Your task to perform on an android device: turn notification dots off Image 0: 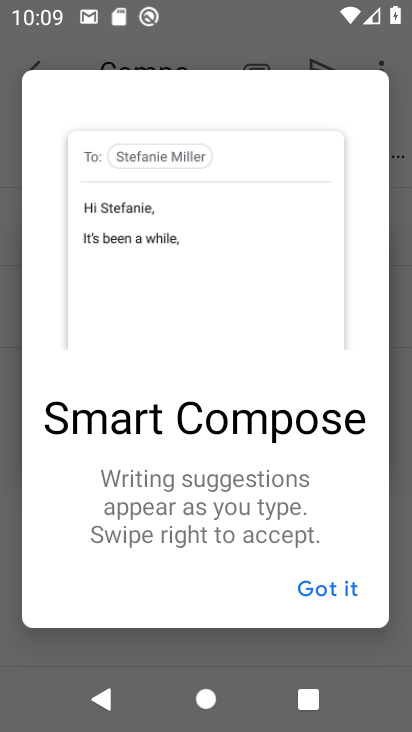
Step 0: press home button
Your task to perform on an android device: turn notification dots off Image 1: 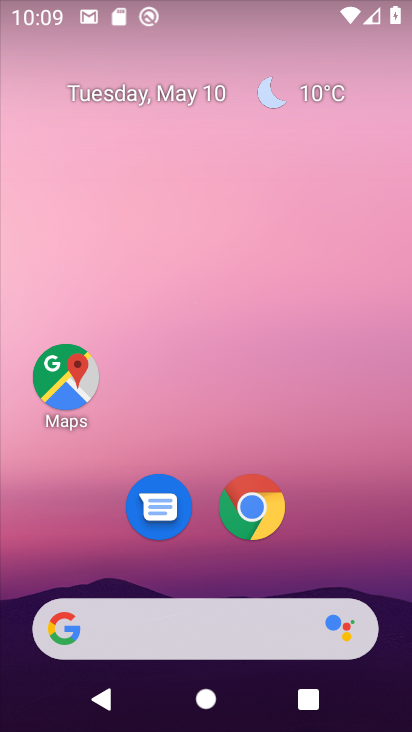
Step 1: drag from (306, 504) to (313, 101)
Your task to perform on an android device: turn notification dots off Image 2: 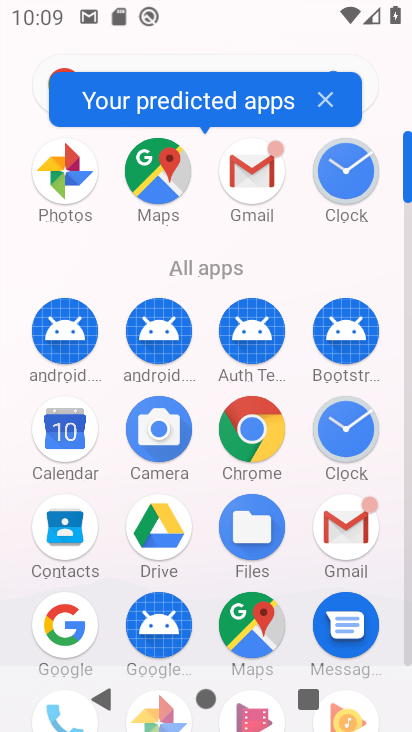
Step 2: drag from (195, 651) to (216, 275)
Your task to perform on an android device: turn notification dots off Image 3: 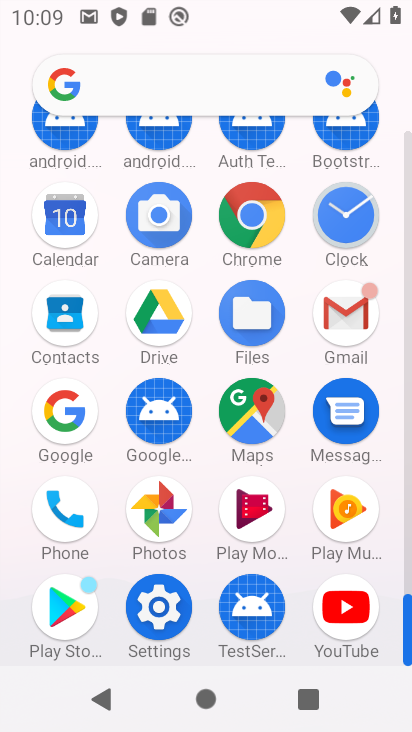
Step 3: click (157, 601)
Your task to perform on an android device: turn notification dots off Image 4: 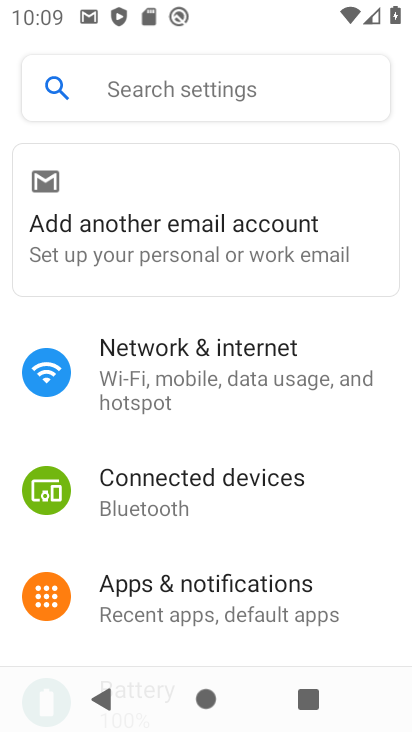
Step 4: click (235, 609)
Your task to perform on an android device: turn notification dots off Image 5: 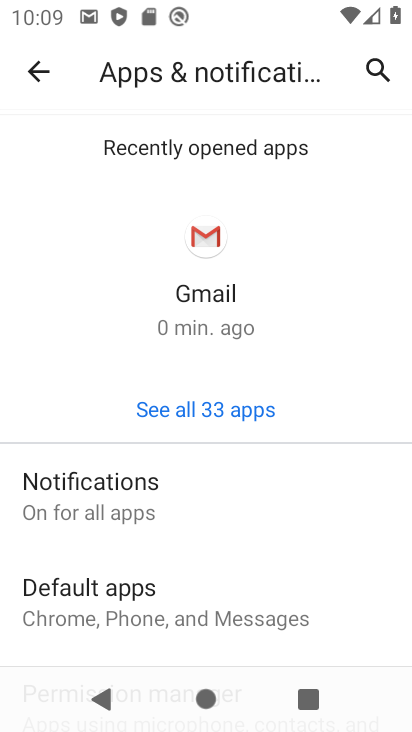
Step 5: click (147, 518)
Your task to perform on an android device: turn notification dots off Image 6: 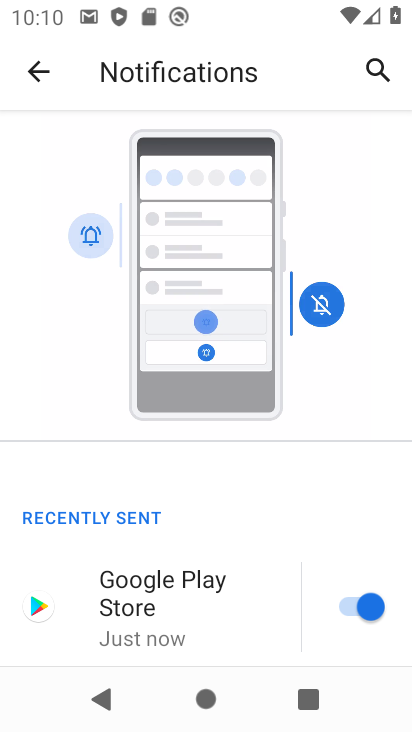
Step 6: drag from (247, 587) to (301, 143)
Your task to perform on an android device: turn notification dots off Image 7: 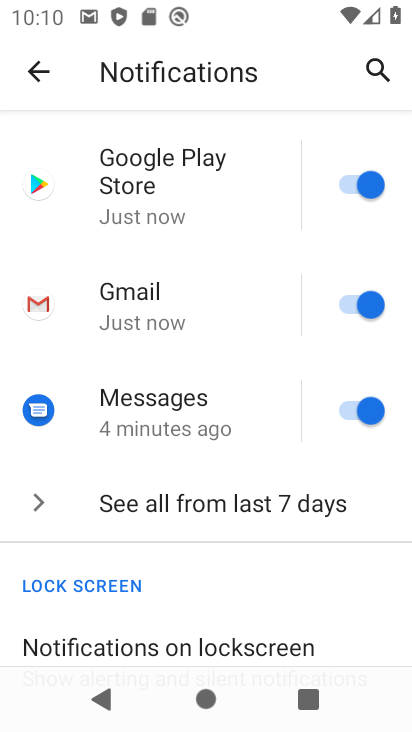
Step 7: drag from (209, 600) to (252, 267)
Your task to perform on an android device: turn notification dots off Image 8: 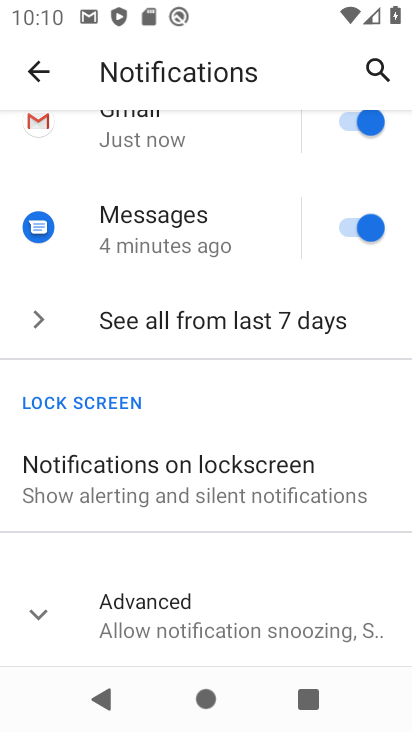
Step 8: click (264, 496)
Your task to perform on an android device: turn notification dots off Image 9: 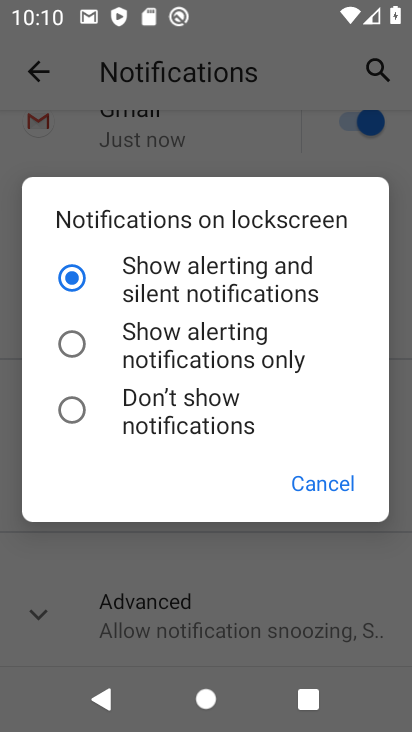
Step 9: click (308, 481)
Your task to perform on an android device: turn notification dots off Image 10: 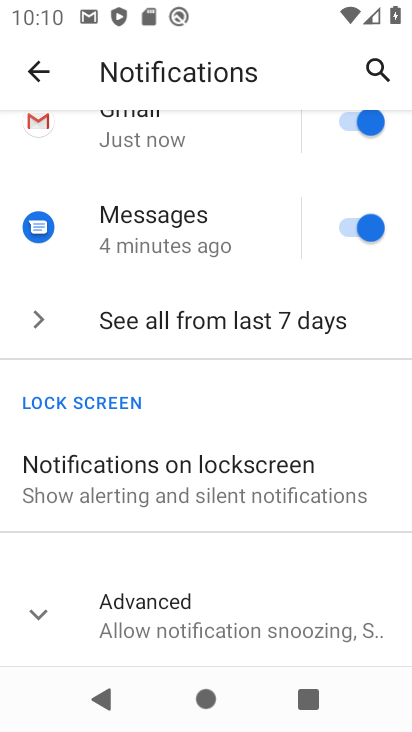
Step 10: drag from (236, 598) to (271, 260)
Your task to perform on an android device: turn notification dots off Image 11: 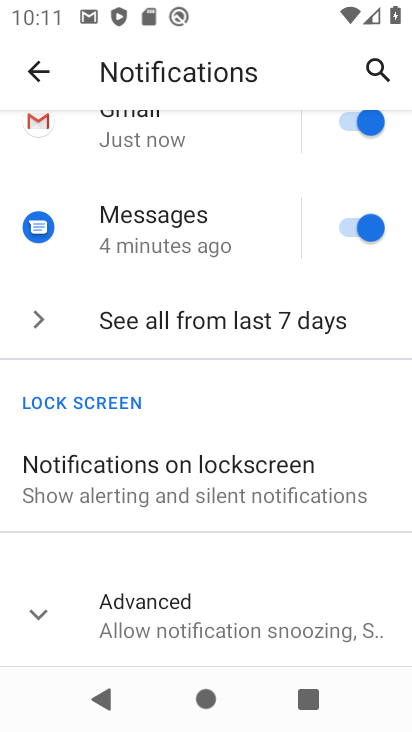
Step 11: click (36, 611)
Your task to perform on an android device: turn notification dots off Image 12: 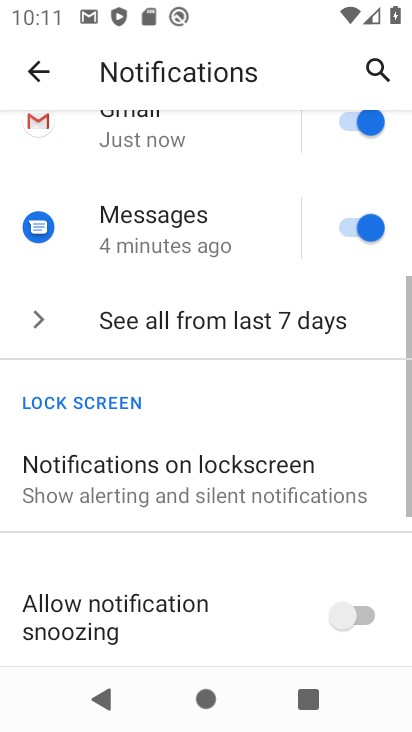
Step 12: drag from (165, 540) to (200, 274)
Your task to perform on an android device: turn notification dots off Image 13: 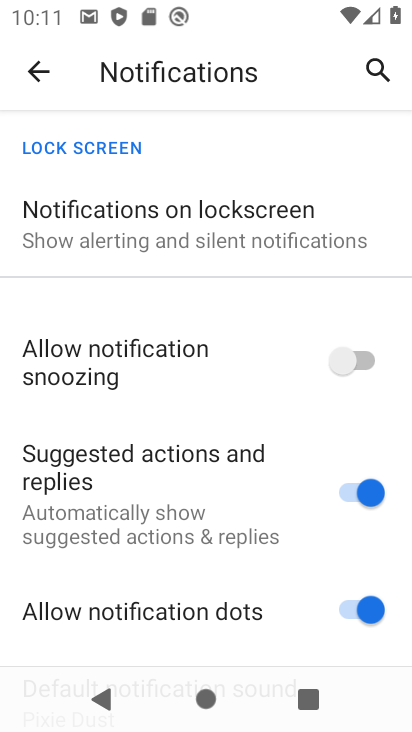
Step 13: click (371, 616)
Your task to perform on an android device: turn notification dots off Image 14: 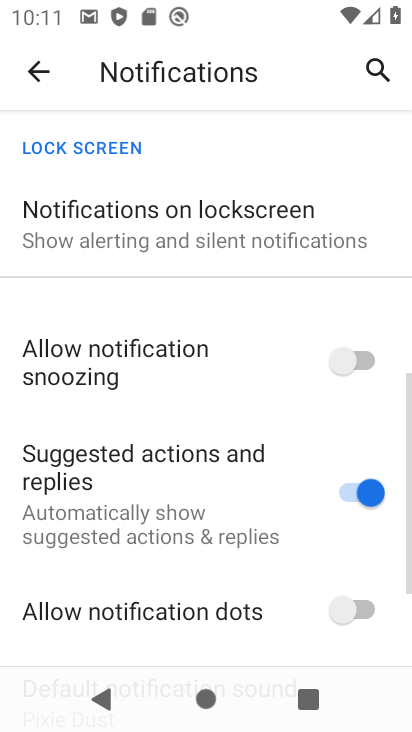
Step 14: task complete